Your task to perform on an android device: Open the phone app and click the voicemail tab. Image 0: 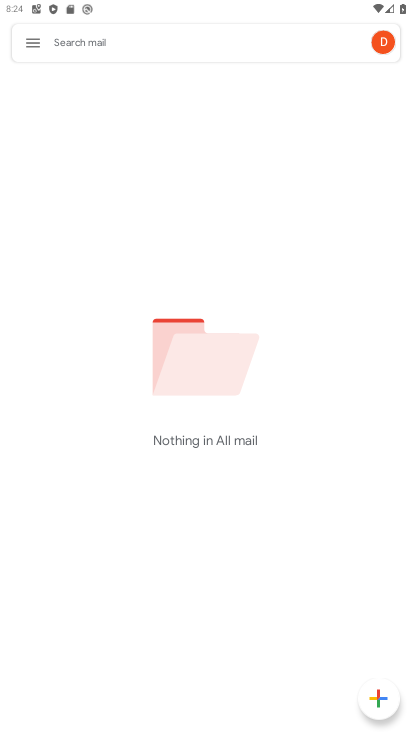
Step 0: press home button
Your task to perform on an android device: Open the phone app and click the voicemail tab. Image 1: 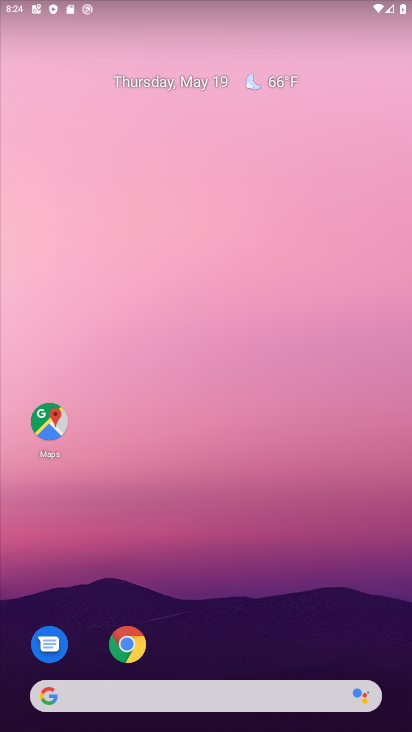
Step 1: drag from (343, 626) to (312, 233)
Your task to perform on an android device: Open the phone app and click the voicemail tab. Image 2: 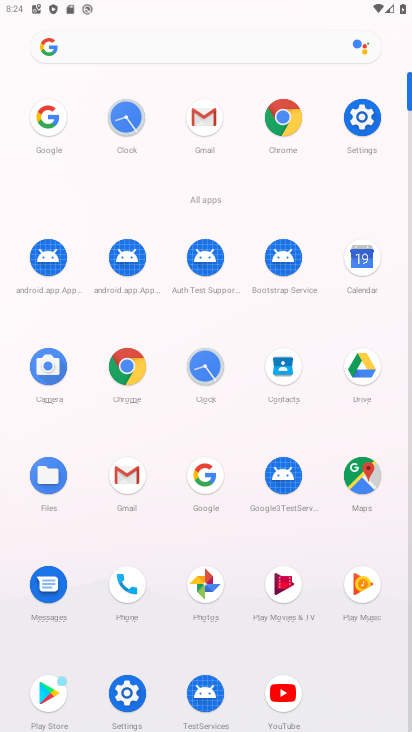
Step 2: click (135, 589)
Your task to perform on an android device: Open the phone app and click the voicemail tab. Image 3: 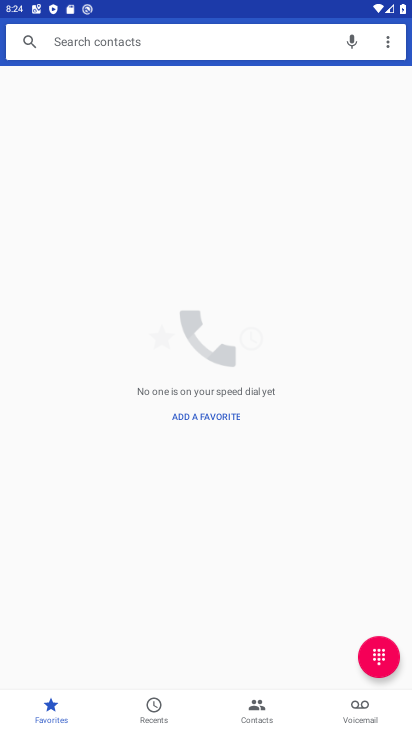
Step 3: click (354, 724)
Your task to perform on an android device: Open the phone app and click the voicemail tab. Image 4: 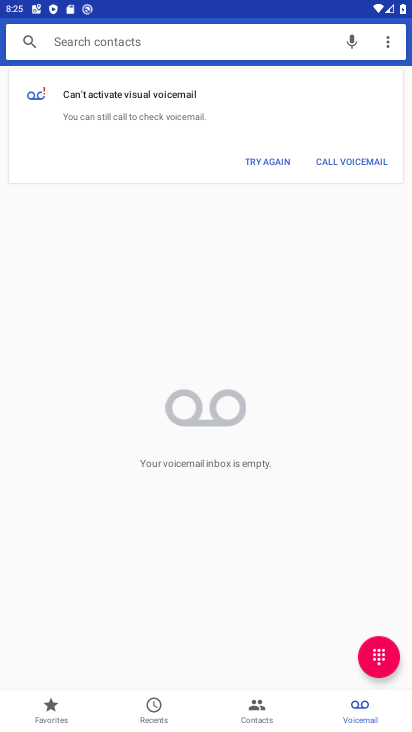
Step 4: task complete